Your task to perform on an android device: open sync settings in chrome Image 0: 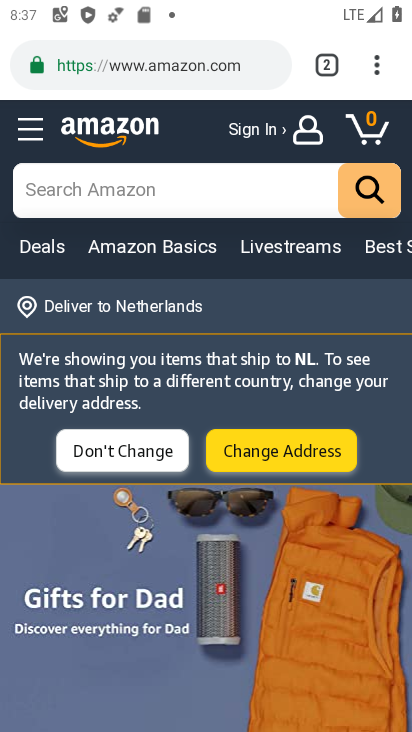
Step 0: drag from (372, 50) to (147, 622)
Your task to perform on an android device: open sync settings in chrome Image 1: 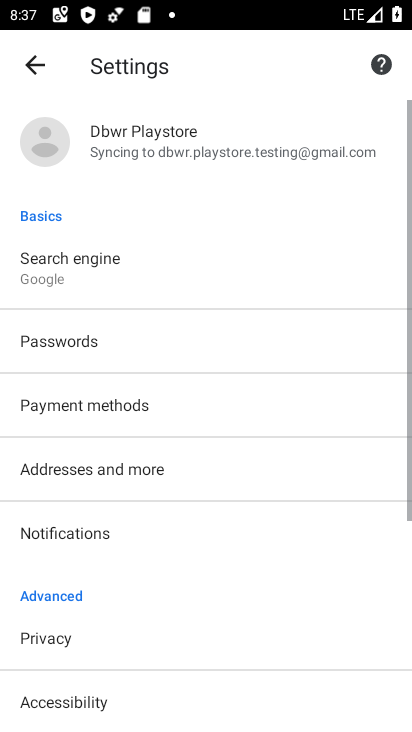
Step 1: click (167, 125)
Your task to perform on an android device: open sync settings in chrome Image 2: 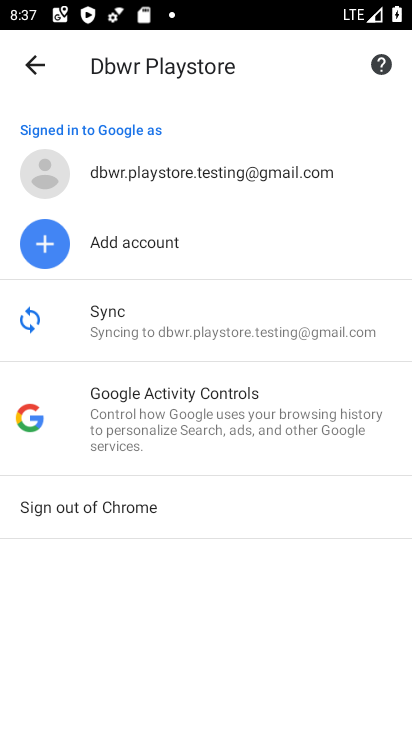
Step 2: click (185, 323)
Your task to perform on an android device: open sync settings in chrome Image 3: 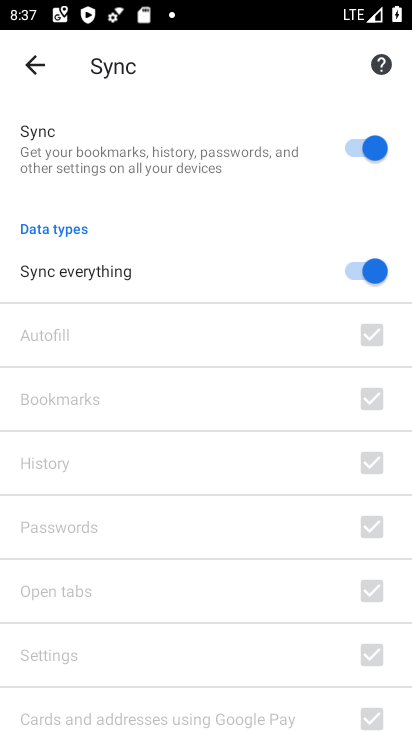
Step 3: task complete